Your task to perform on an android device: Search for pizza restaurants on Maps Image 0: 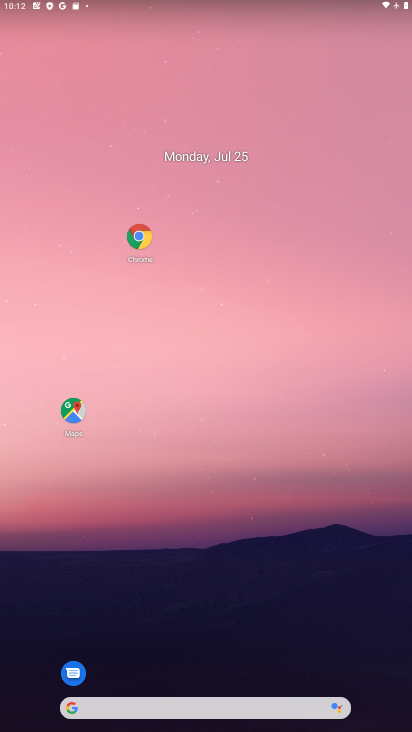
Step 0: drag from (265, 666) to (306, 117)
Your task to perform on an android device: Search for pizza restaurants on Maps Image 1: 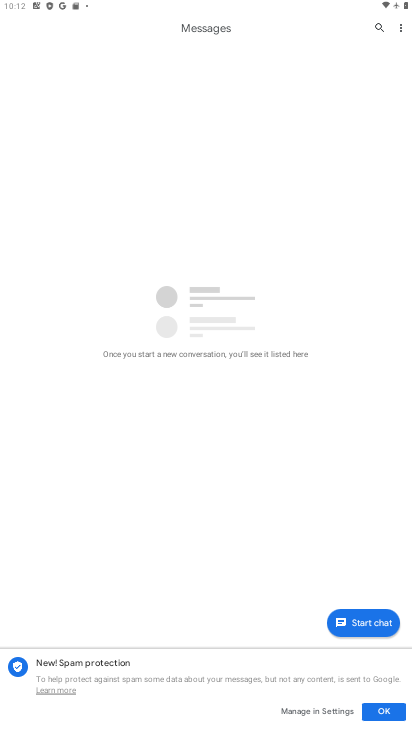
Step 1: press home button
Your task to perform on an android device: Search for pizza restaurants on Maps Image 2: 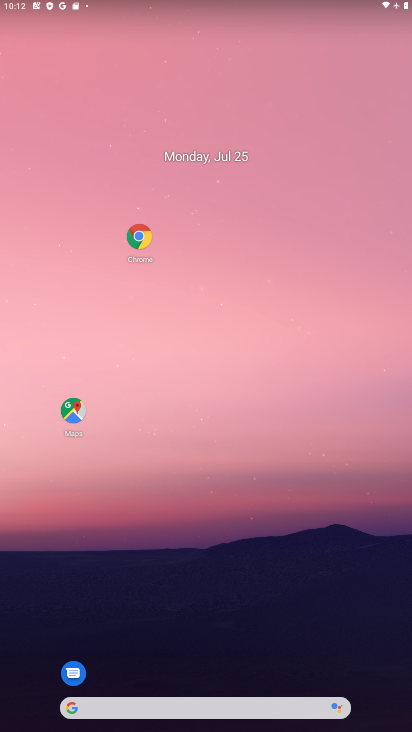
Step 2: click (79, 427)
Your task to perform on an android device: Search for pizza restaurants on Maps Image 3: 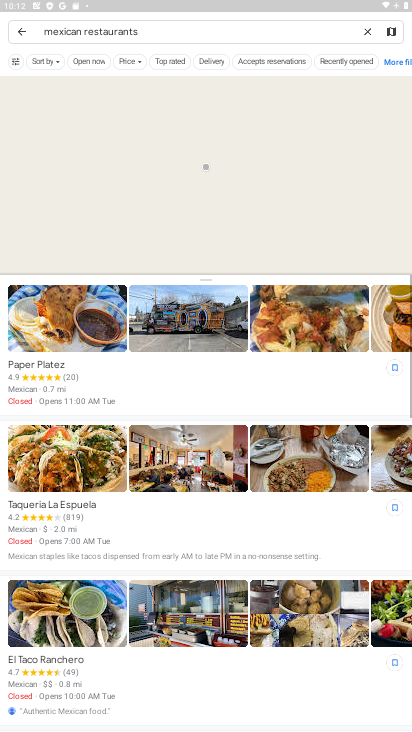
Step 3: click (185, 41)
Your task to perform on an android device: Search for pizza restaurants on Maps Image 4: 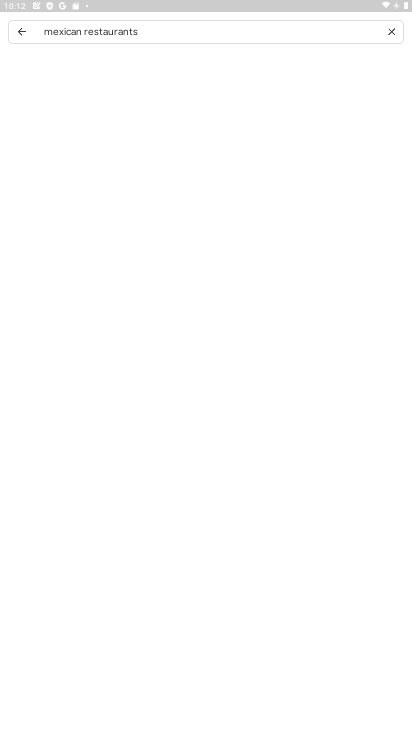
Step 4: click (187, 37)
Your task to perform on an android device: Search for pizza restaurants on Maps Image 5: 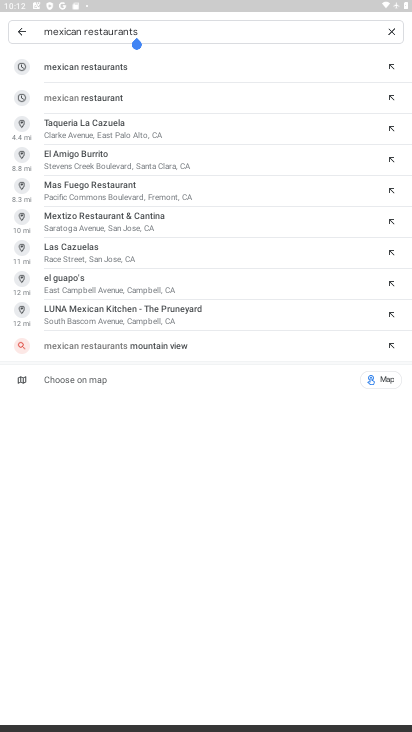
Step 5: click (212, 30)
Your task to perform on an android device: Search for pizza restaurants on Maps Image 6: 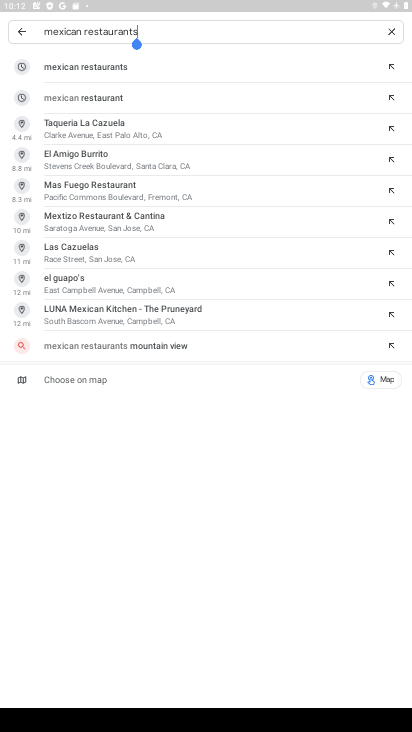
Step 6: click (391, 30)
Your task to perform on an android device: Search for pizza restaurants on Maps Image 7: 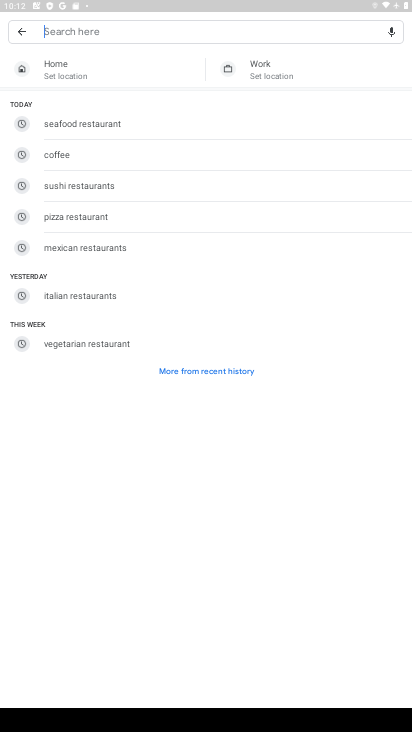
Step 7: click (68, 210)
Your task to perform on an android device: Search for pizza restaurants on Maps Image 8: 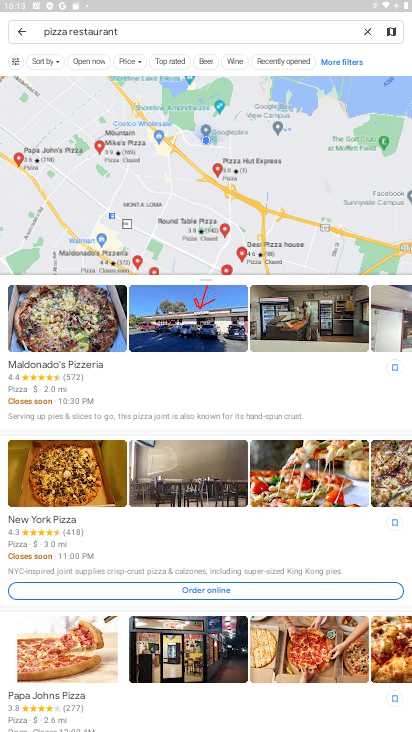
Step 8: task complete